Your task to perform on an android device: turn on translation in the chrome app Image 0: 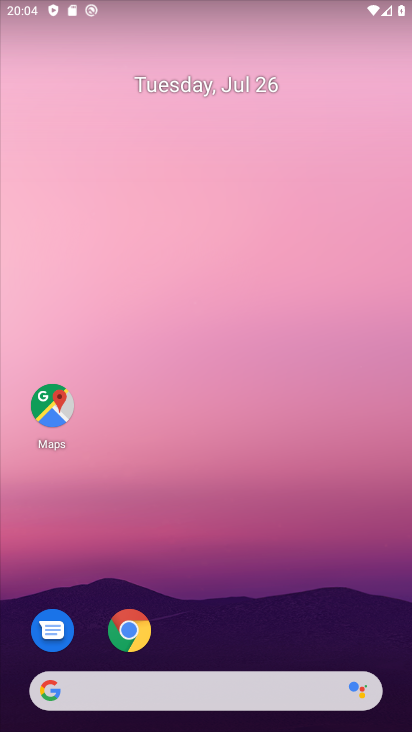
Step 0: press home button
Your task to perform on an android device: turn on translation in the chrome app Image 1: 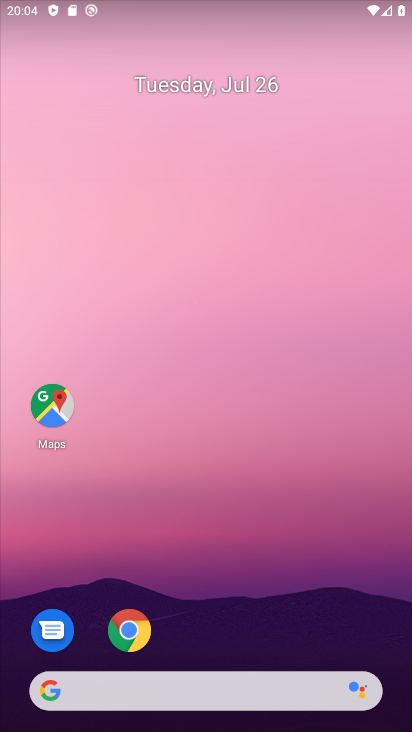
Step 1: drag from (324, 593) to (330, 121)
Your task to perform on an android device: turn on translation in the chrome app Image 2: 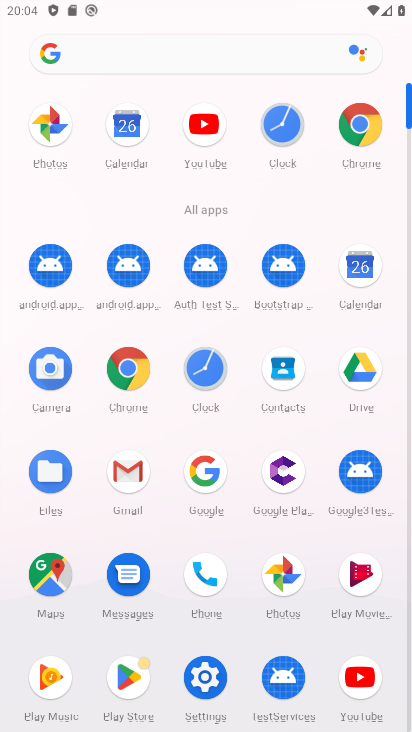
Step 2: click (127, 374)
Your task to perform on an android device: turn on translation in the chrome app Image 3: 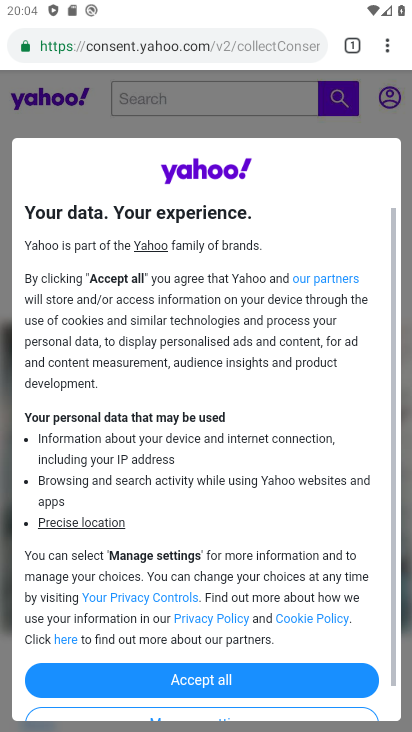
Step 3: click (387, 50)
Your task to perform on an android device: turn on translation in the chrome app Image 4: 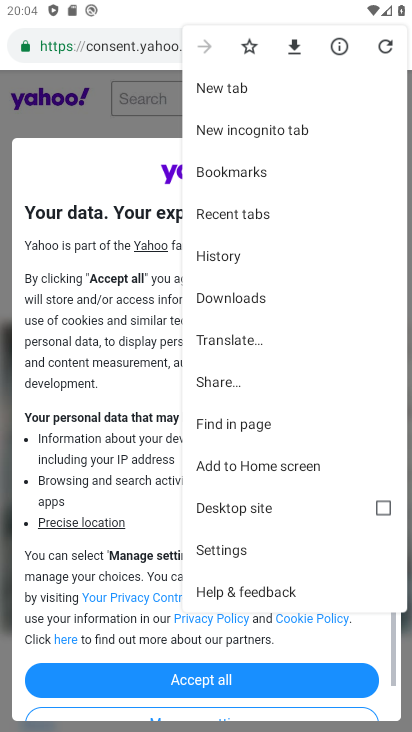
Step 4: click (235, 553)
Your task to perform on an android device: turn on translation in the chrome app Image 5: 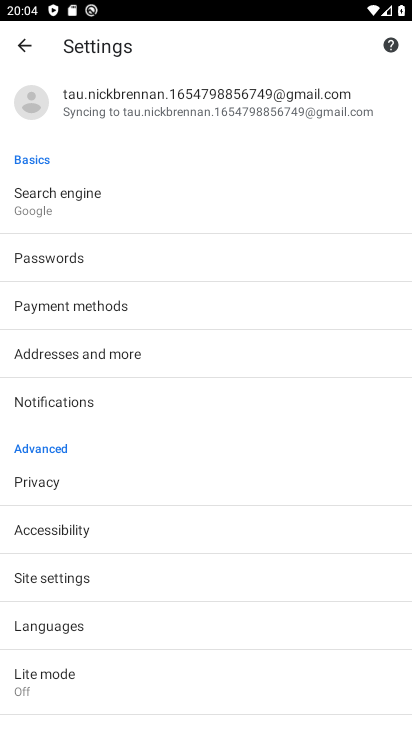
Step 5: drag from (284, 562) to (284, 520)
Your task to perform on an android device: turn on translation in the chrome app Image 6: 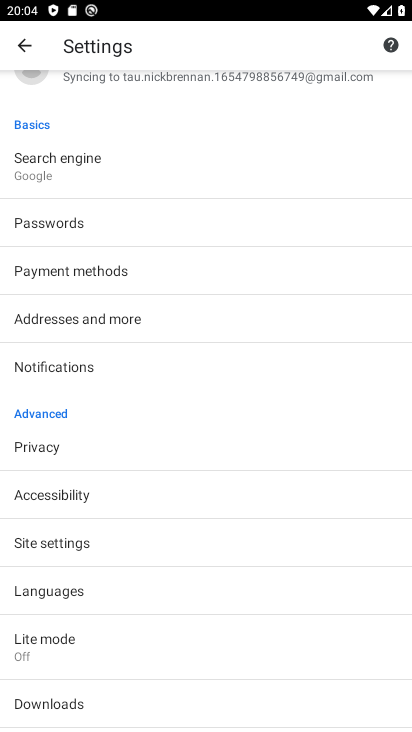
Step 6: drag from (279, 664) to (284, 528)
Your task to perform on an android device: turn on translation in the chrome app Image 7: 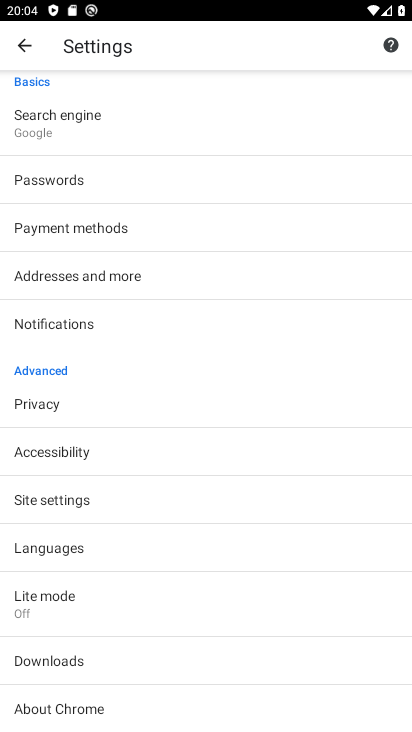
Step 7: click (249, 543)
Your task to perform on an android device: turn on translation in the chrome app Image 8: 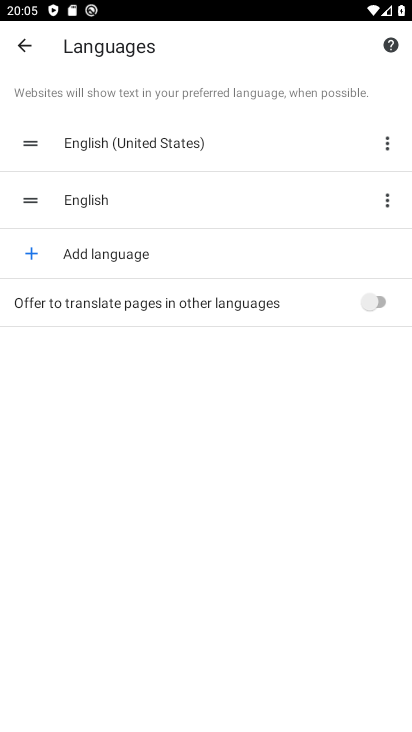
Step 8: click (361, 306)
Your task to perform on an android device: turn on translation in the chrome app Image 9: 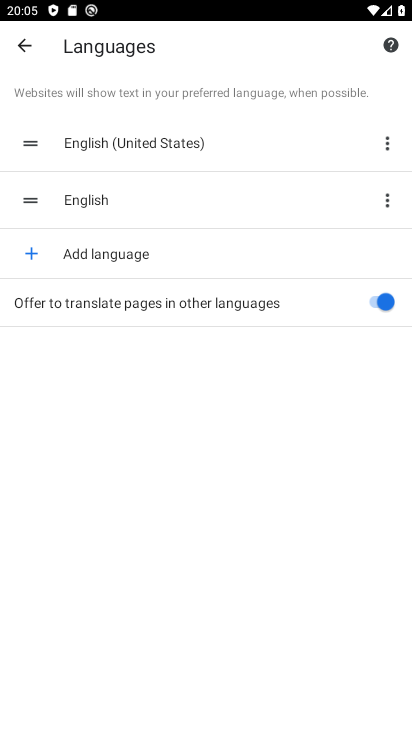
Step 9: task complete